Your task to perform on an android device: What is the recent news? Image 0: 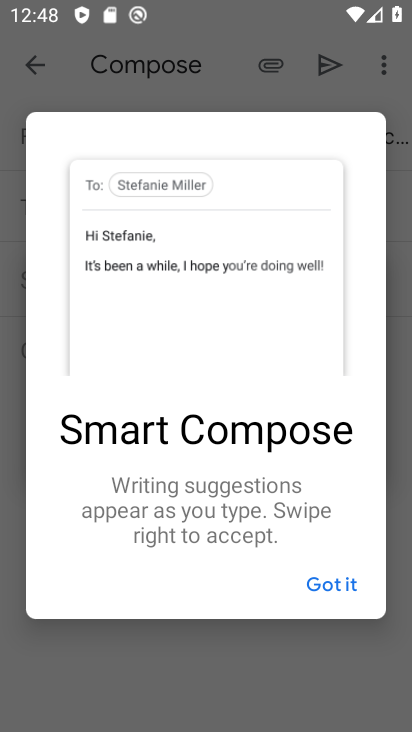
Step 0: drag from (181, 652) to (260, 26)
Your task to perform on an android device: What is the recent news? Image 1: 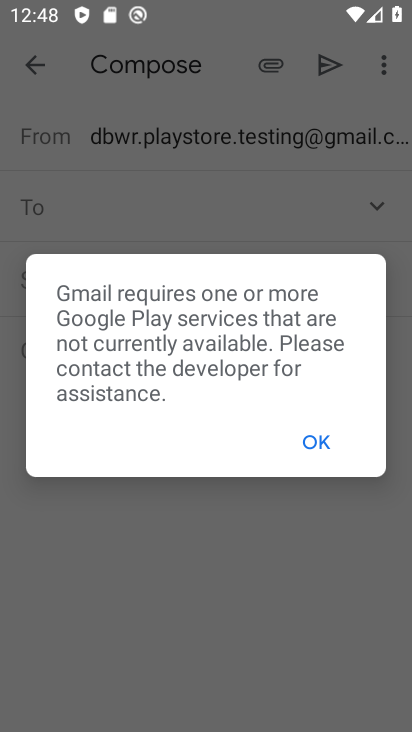
Step 1: press home button
Your task to perform on an android device: What is the recent news? Image 2: 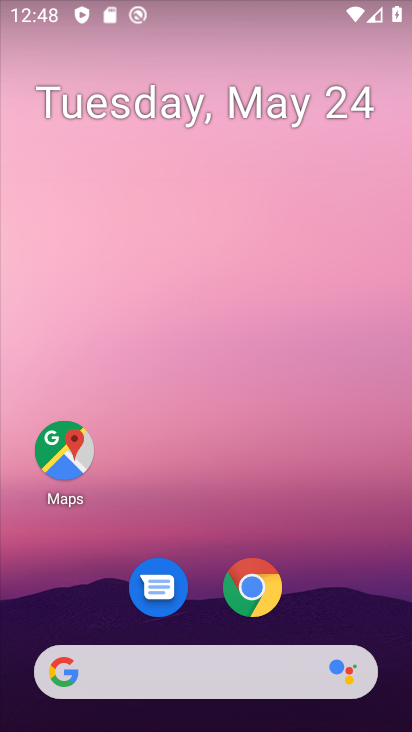
Step 2: drag from (224, 640) to (134, 56)
Your task to perform on an android device: What is the recent news? Image 3: 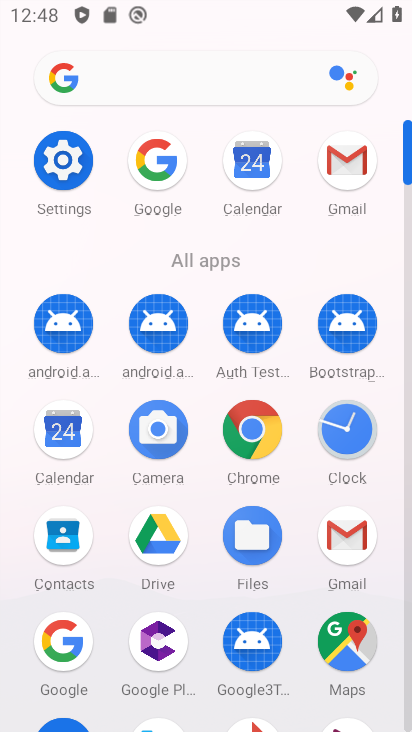
Step 3: click (332, 420)
Your task to perform on an android device: What is the recent news? Image 4: 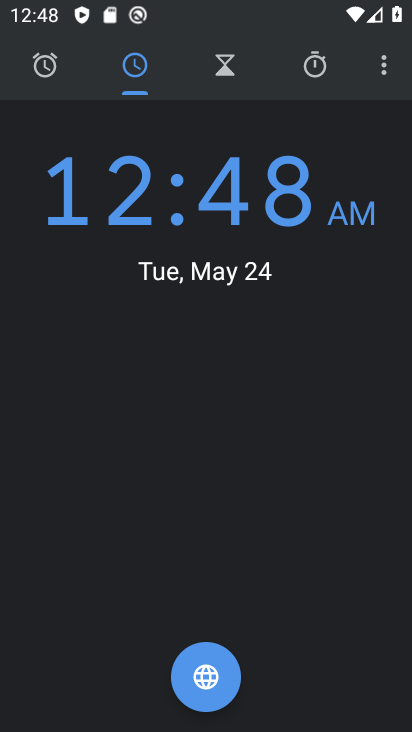
Step 4: click (378, 73)
Your task to perform on an android device: What is the recent news? Image 5: 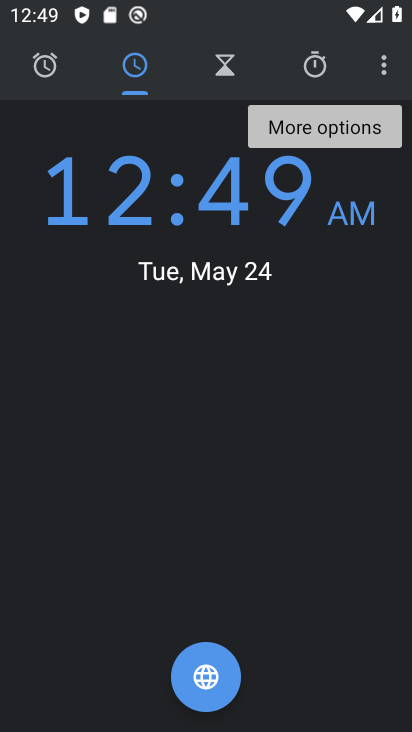
Step 5: task complete